Your task to perform on an android device: Go to display settings Image 0: 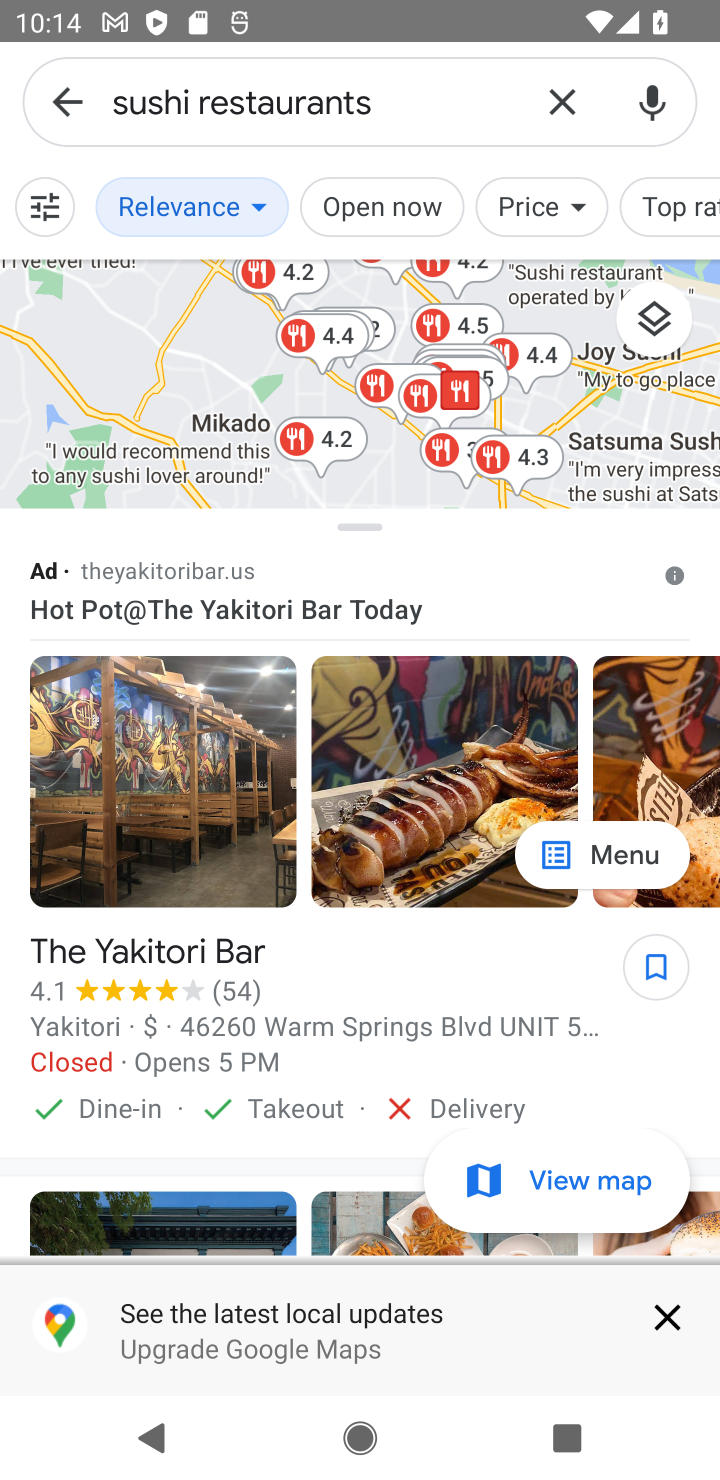
Step 0: press home button
Your task to perform on an android device: Go to display settings Image 1: 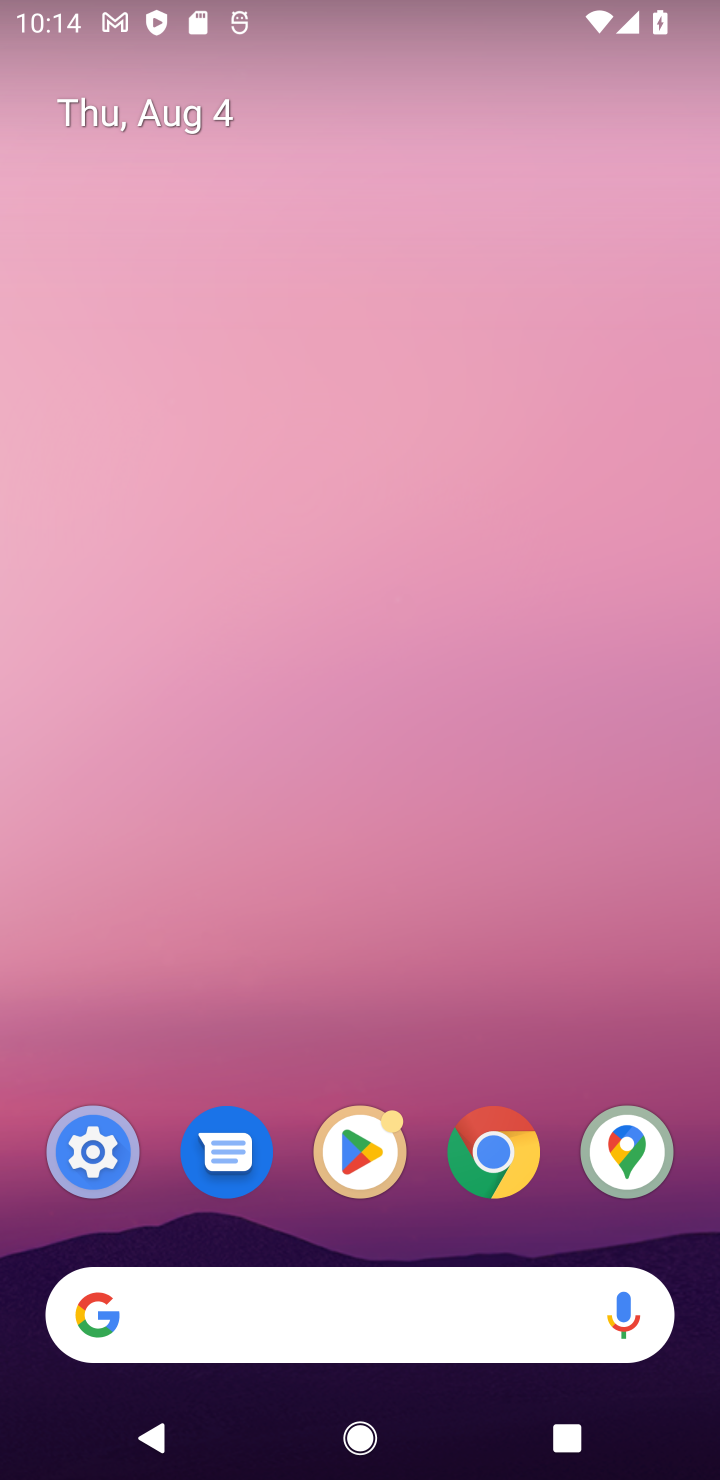
Step 1: drag from (423, 1206) to (400, 484)
Your task to perform on an android device: Go to display settings Image 2: 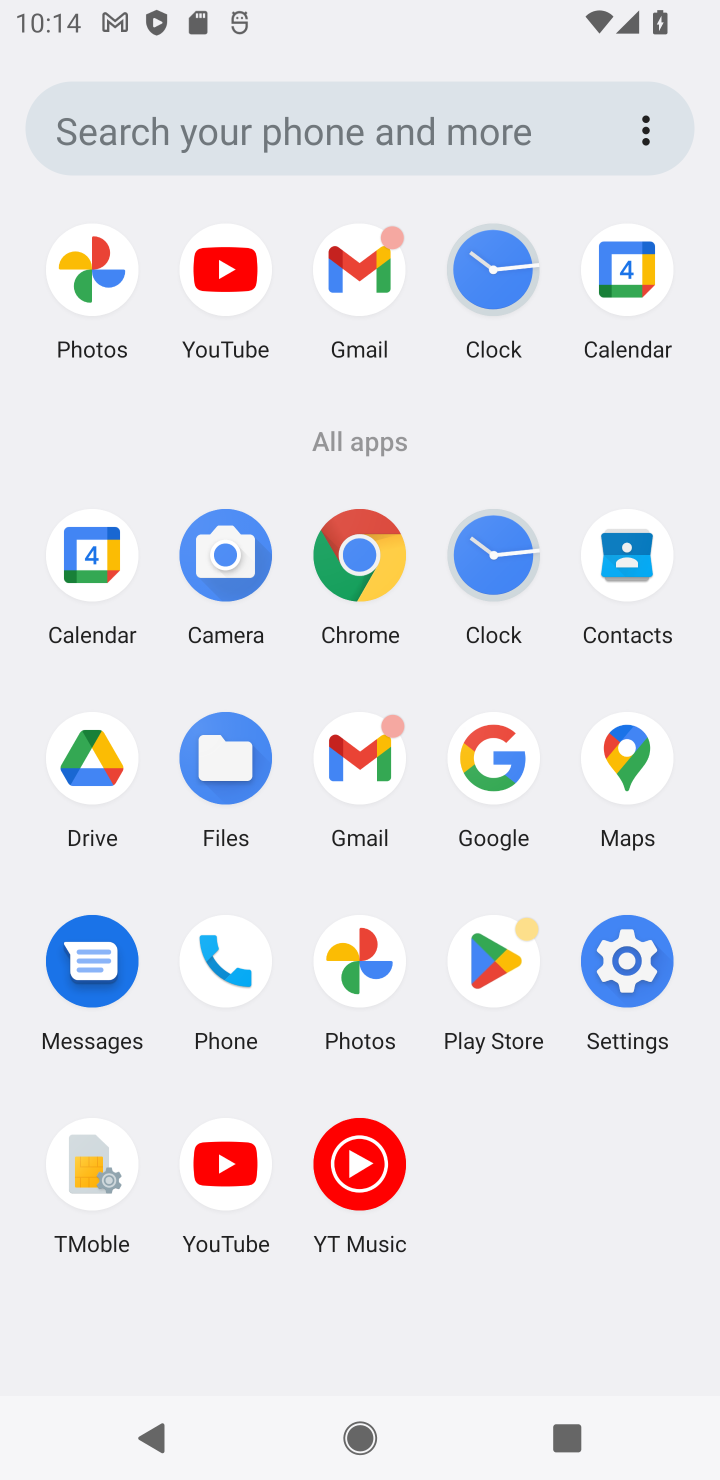
Step 2: click (615, 995)
Your task to perform on an android device: Go to display settings Image 3: 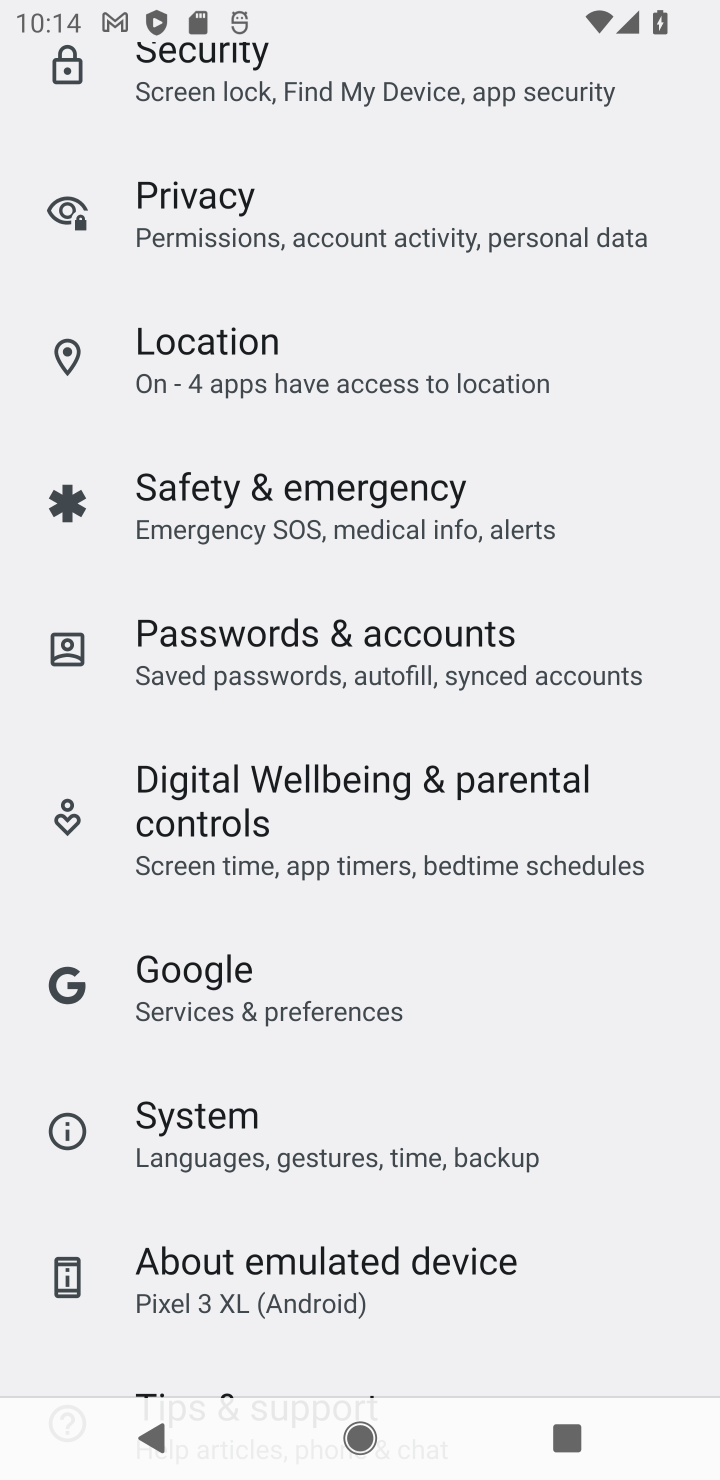
Step 3: drag from (322, 546) to (320, 1168)
Your task to perform on an android device: Go to display settings Image 4: 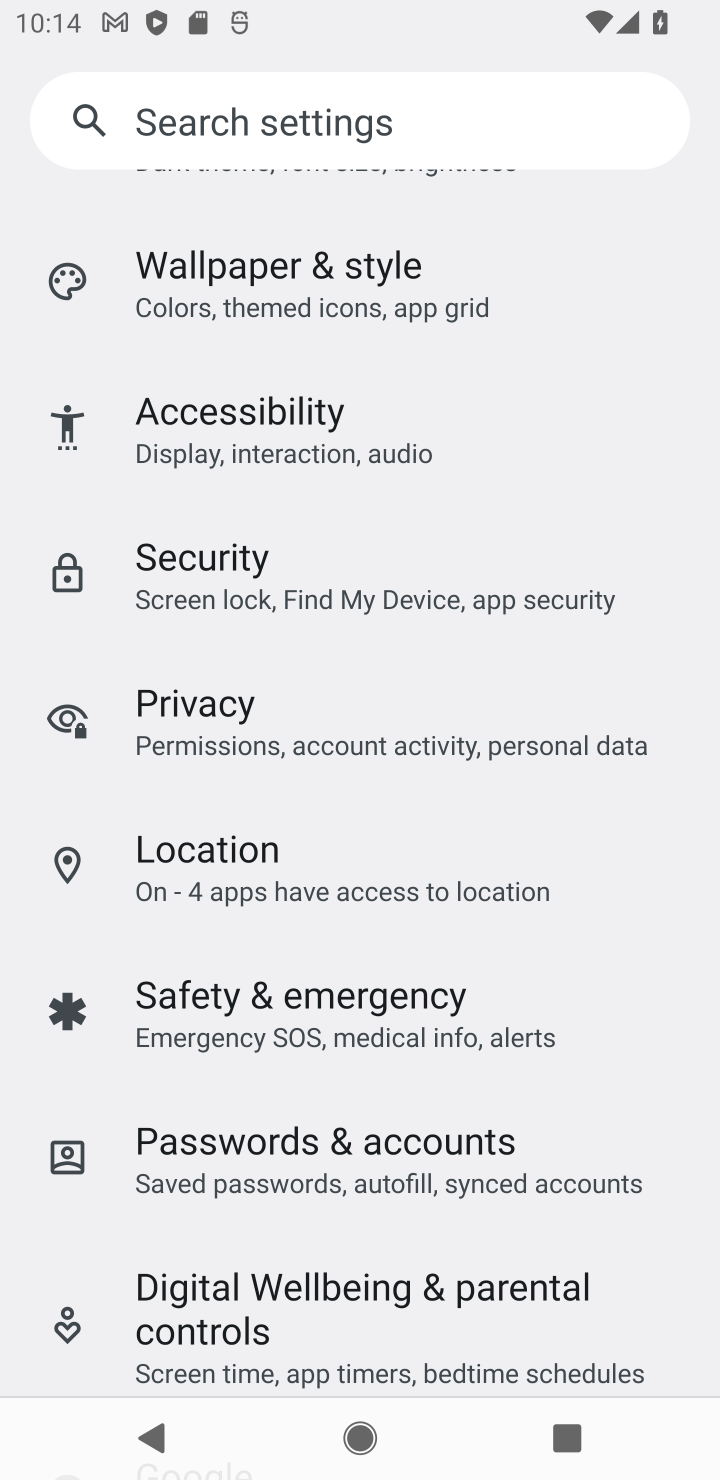
Step 4: drag from (331, 542) to (287, 1119)
Your task to perform on an android device: Go to display settings Image 5: 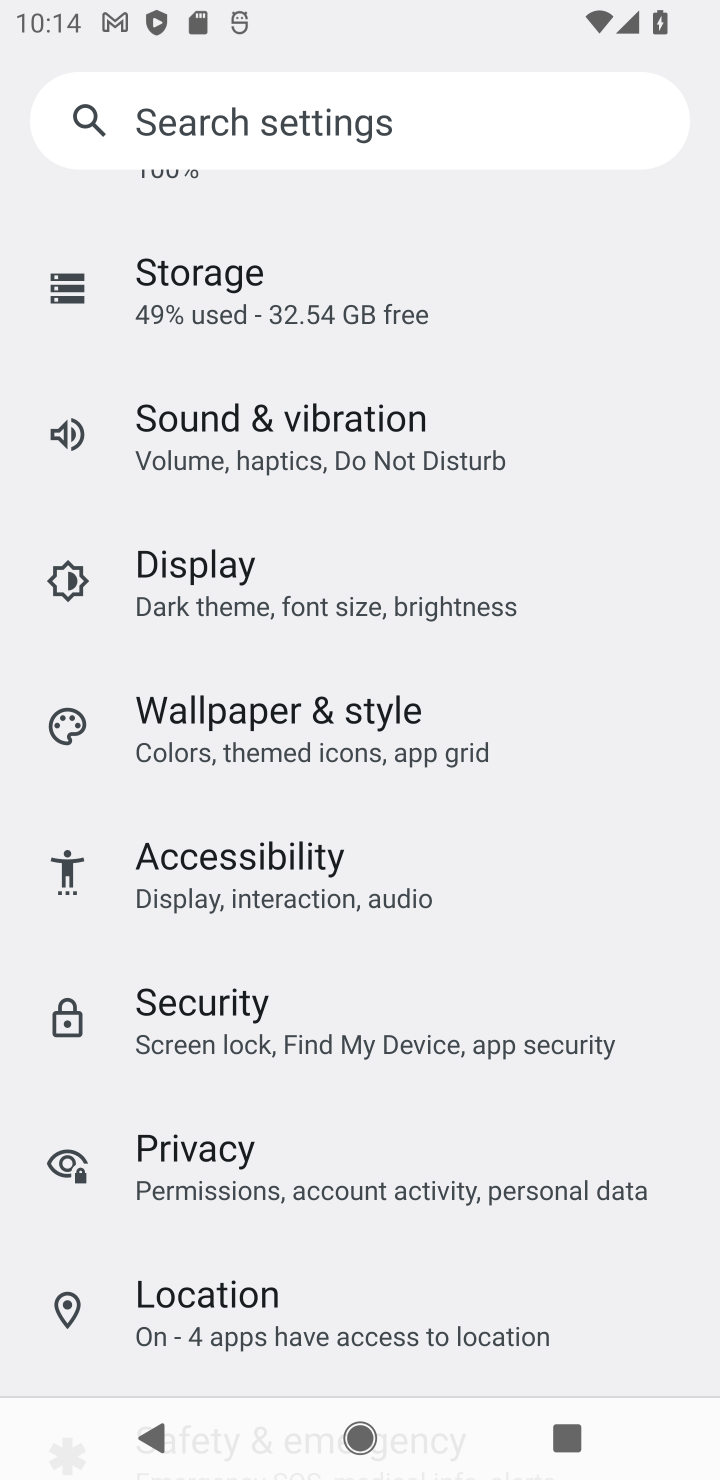
Step 5: click (226, 601)
Your task to perform on an android device: Go to display settings Image 6: 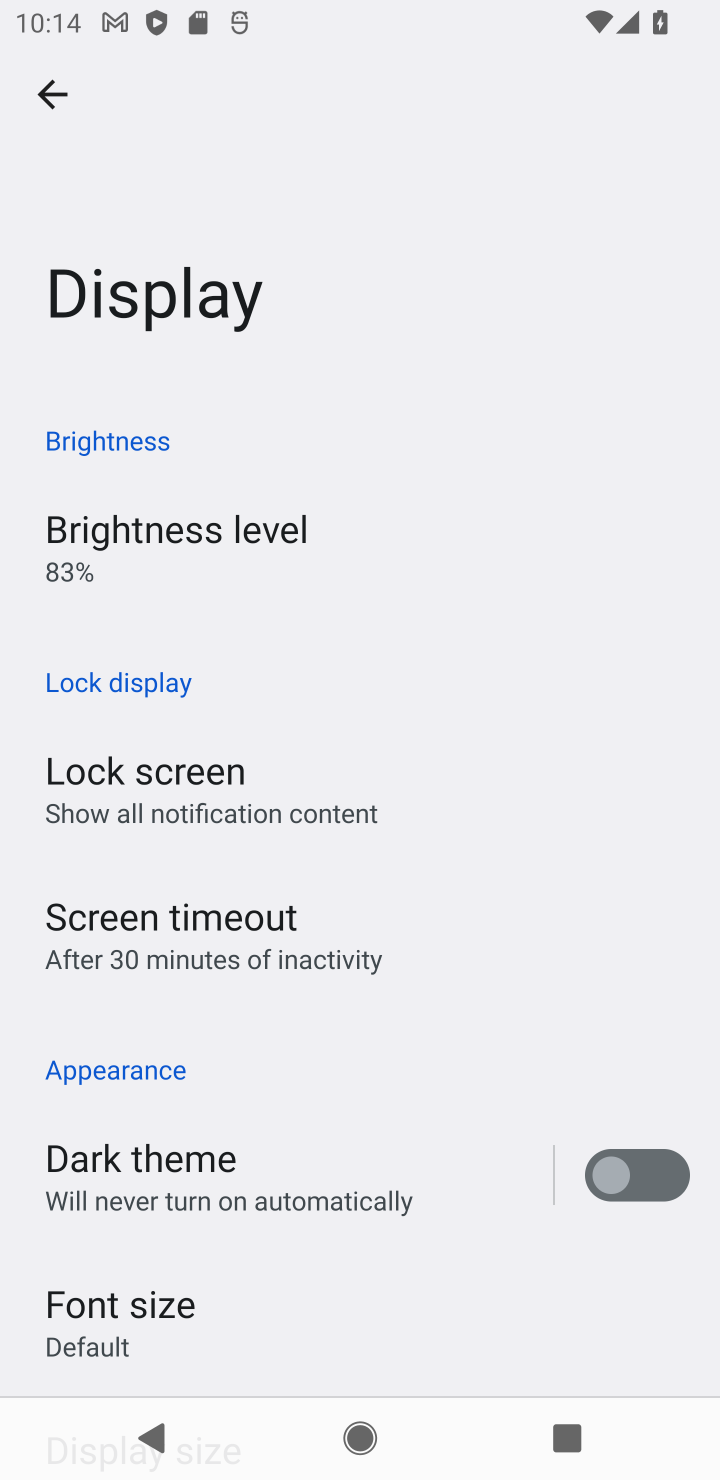
Step 6: task complete